Your task to perform on an android device: see sites visited before in the chrome app Image 0: 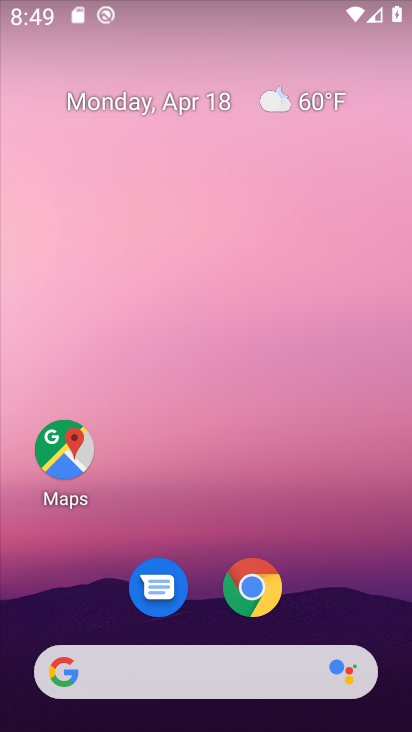
Step 0: click (267, 610)
Your task to perform on an android device: see sites visited before in the chrome app Image 1: 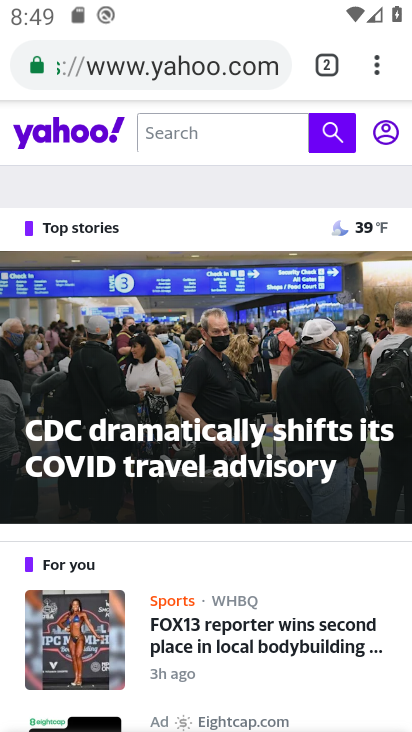
Step 1: click (372, 53)
Your task to perform on an android device: see sites visited before in the chrome app Image 2: 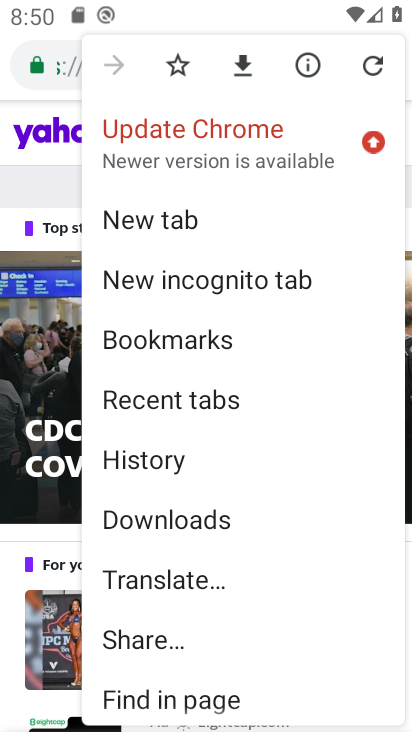
Step 2: click (229, 386)
Your task to perform on an android device: see sites visited before in the chrome app Image 3: 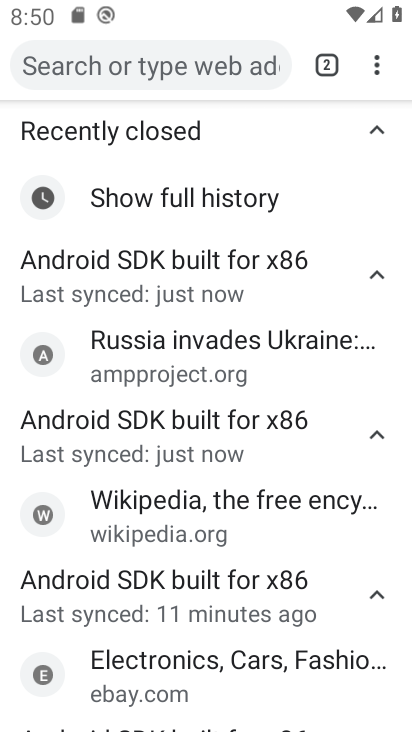
Step 3: task complete